Your task to perform on an android device: toggle wifi Image 0: 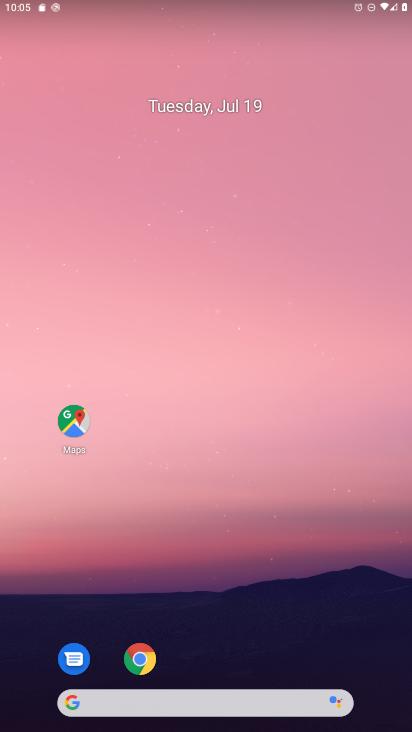
Step 0: drag from (286, 578) to (227, 213)
Your task to perform on an android device: toggle wifi Image 1: 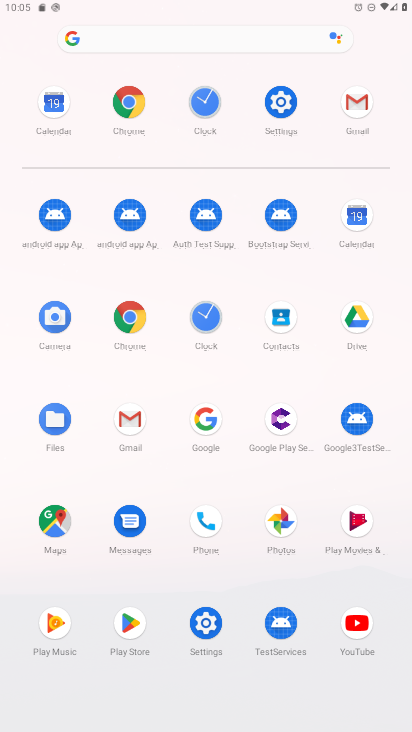
Step 1: click (290, 90)
Your task to perform on an android device: toggle wifi Image 2: 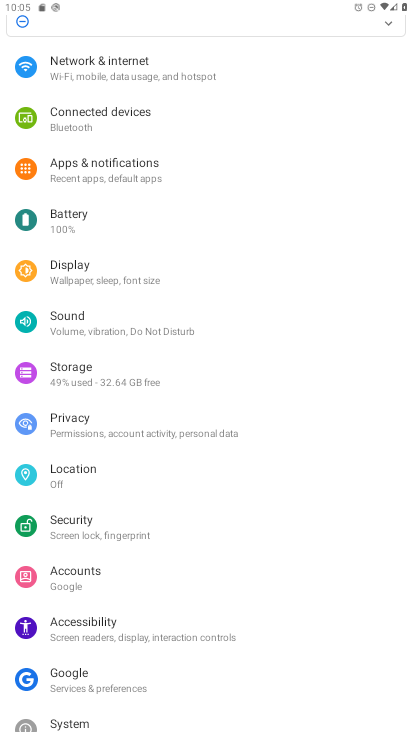
Step 2: drag from (136, 103) to (152, 671)
Your task to perform on an android device: toggle wifi Image 3: 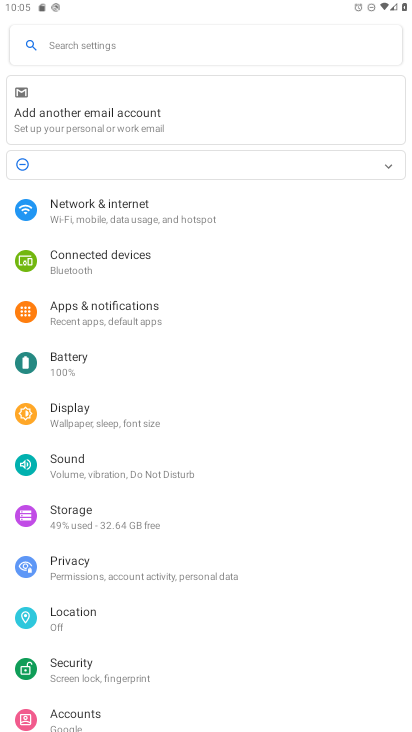
Step 3: click (123, 209)
Your task to perform on an android device: toggle wifi Image 4: 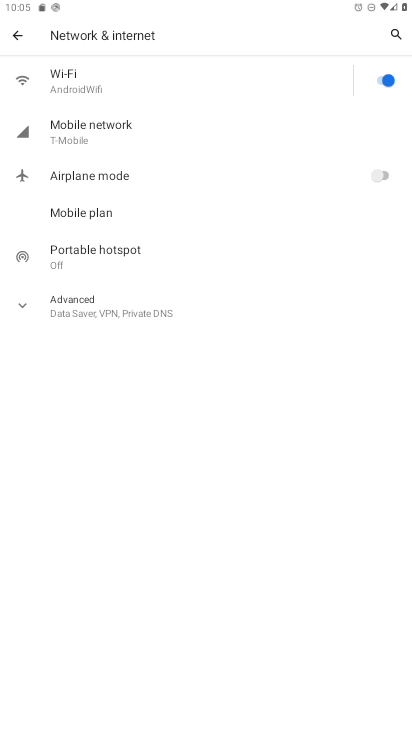
Step 4: click (89, 90)
Your task to perform on an android device: toggle wifi Image 5: 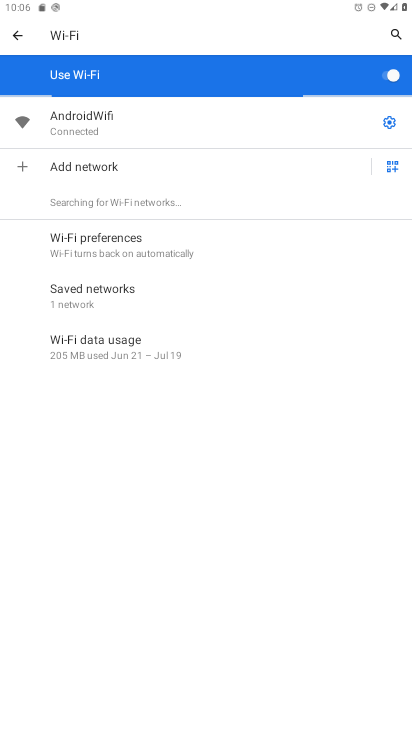
Step 5: task complete